Your task to perform on an android device: turn on airplane mode Image 0: 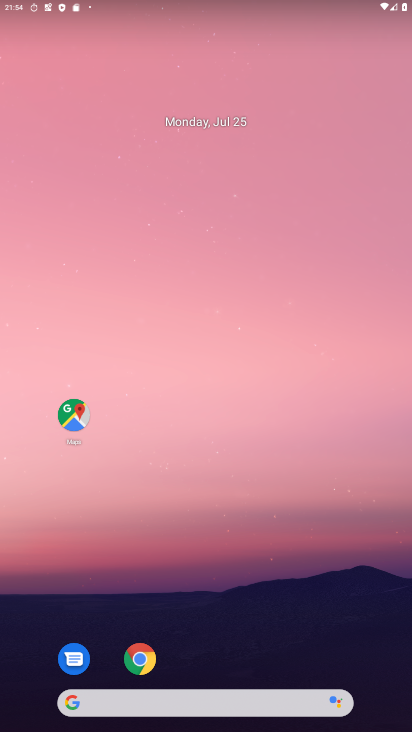
Step 0: drag from (185, 649) to (196, 338)
Your task to perform on an android device: turn on airplane mode Image 1: 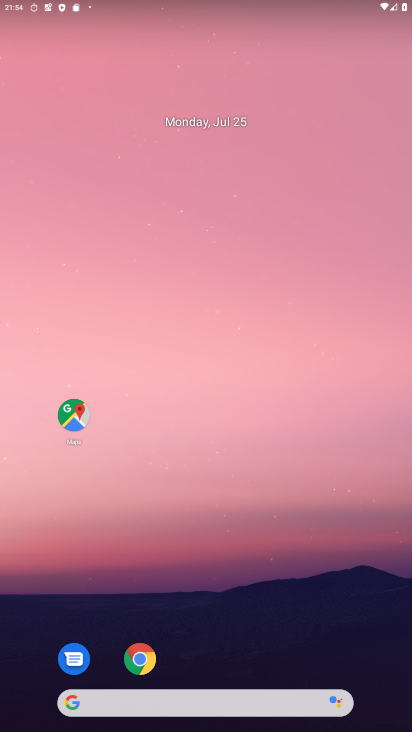
Step 1: drag from (210, 648) to (215, 244)
Your task to perform on an android device: turn on airplane mode Image 2: 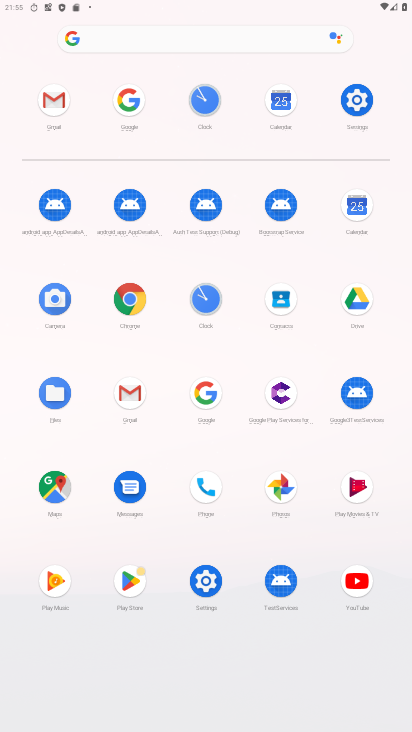
Step 2: click (357, 113)
Your task to perform on an android device: turn on airplane mode Image 3: 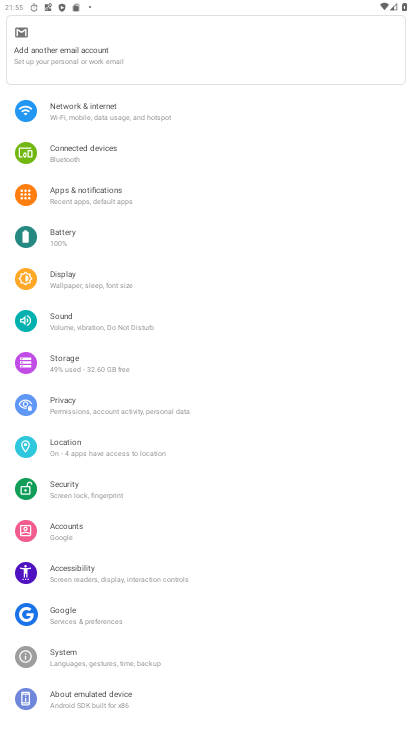
Step 3: click (169, 110)
Your task to perform on an android device: turn on airplane mode Image 4: 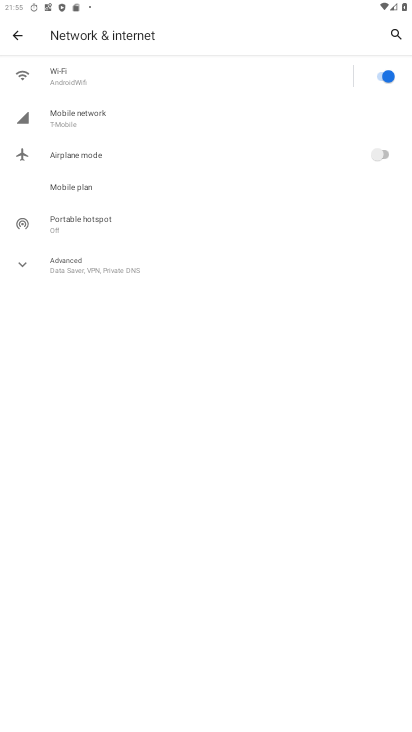
Step 4: click (382, 147)
Your task to perform on an android device: turn on airplane mode Image 5: 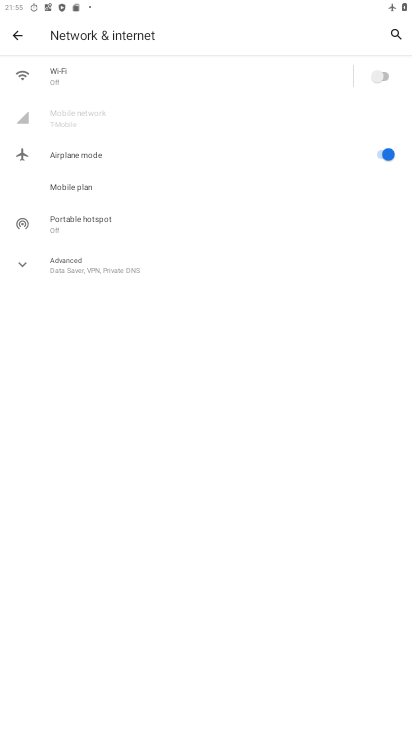
Step 5: task complete